Your task to perform on an android device: Show me the alarms in the clock app Image 0: 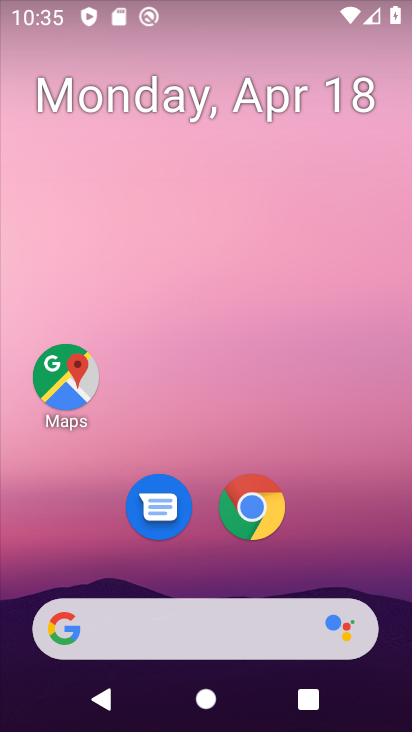
Step 0: drag from (260, 674) to (348, 109)
Your task to perform on an android device: Show me the alarms in the clock app Image 1: 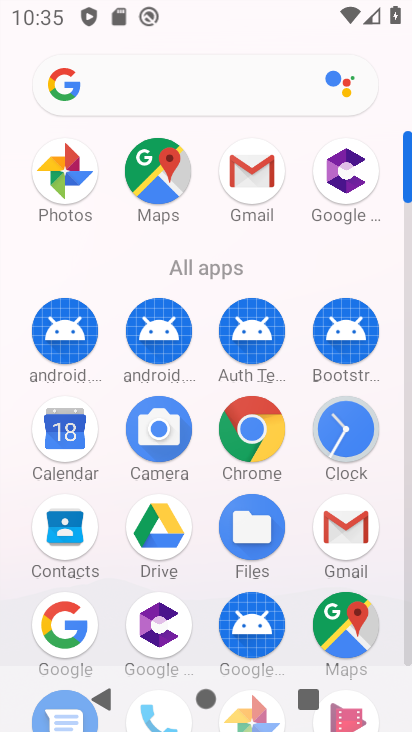
Step 1: click (349, 390)
Your task to perform on an android device: Show me the alarms in the clock app Image 2: 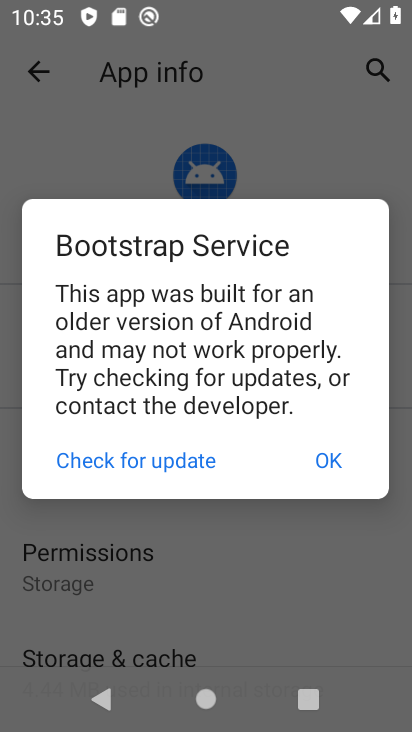
Step 2: press home button
Your task to perform on an android device: Show me the alarms in the clock app Image 3: 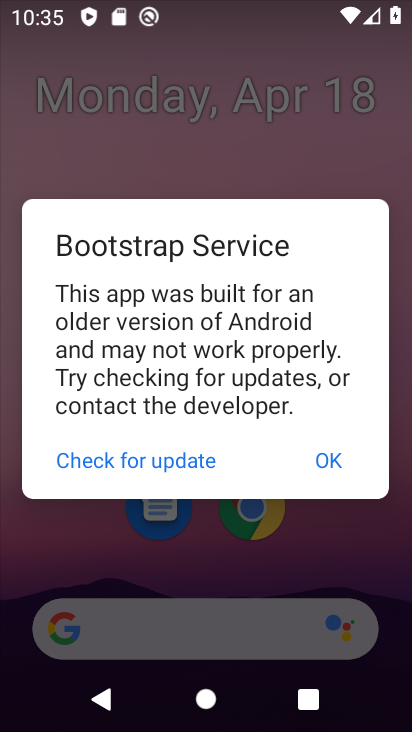
Step 3: click (317, 467)
Your task to perform on an android device: Show me the alarms in the clock app Image 4: 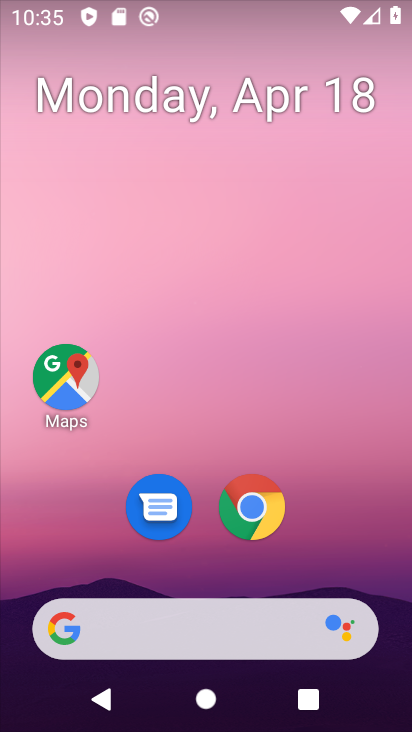
Step 4: drag from (306, 618) to (361, 136)
Your task to perform on an android device: Show me the alarms in the clock app Image 5: 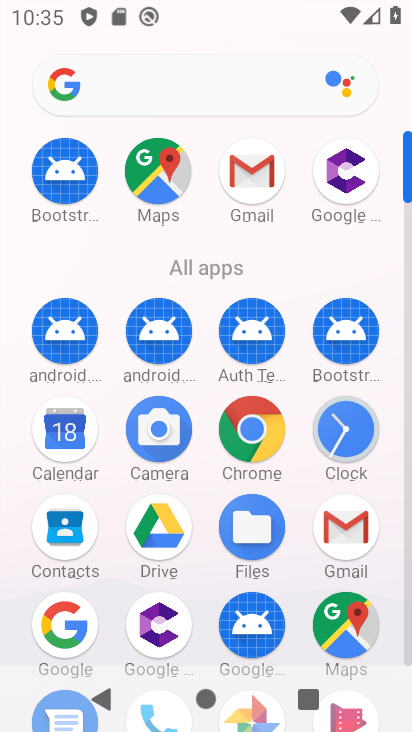
Step 5: click (322, 430)
Your task to perform on an android device: Show me the alarms in the clock app Image 6: 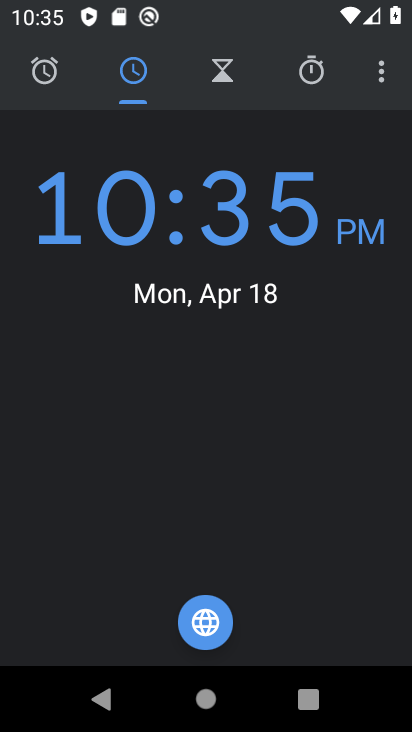
Step 6: click (383, 90)
Your task to perform on an android device: Show me the alarms in the clock app Image 7: 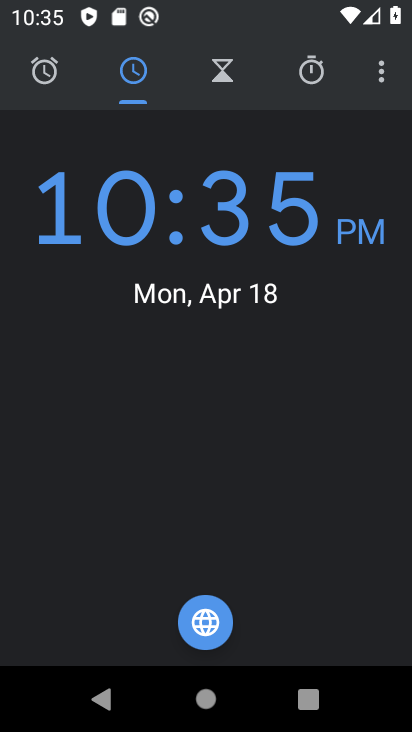
Step 7: click (371, 76)
Your task to perform on an android device: Show me the alarms in the clock app Image 8: 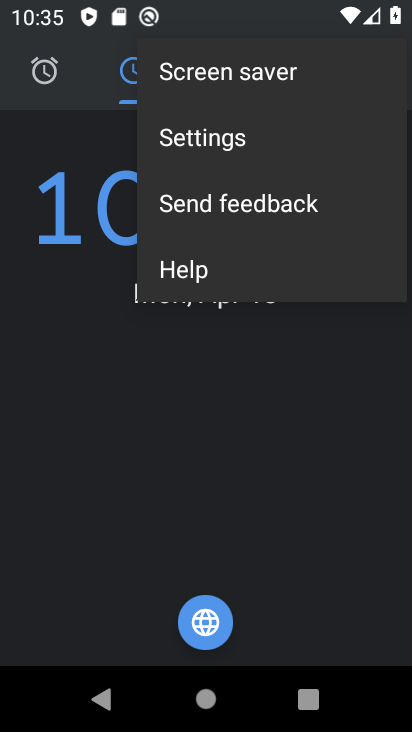
Step 8: click (261, 148)
Your task to perform on an android device: Show me the alarms in the clock app Image 9: 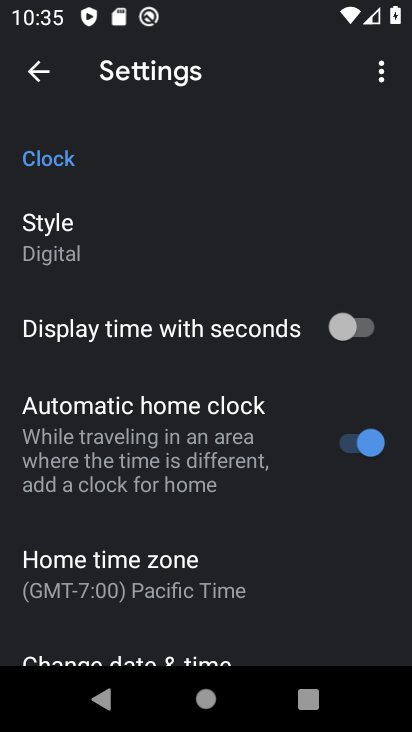
Step 9: click (38, 97)
Your task to perform on an android device: Show me the alarms in the clock app Image 10: 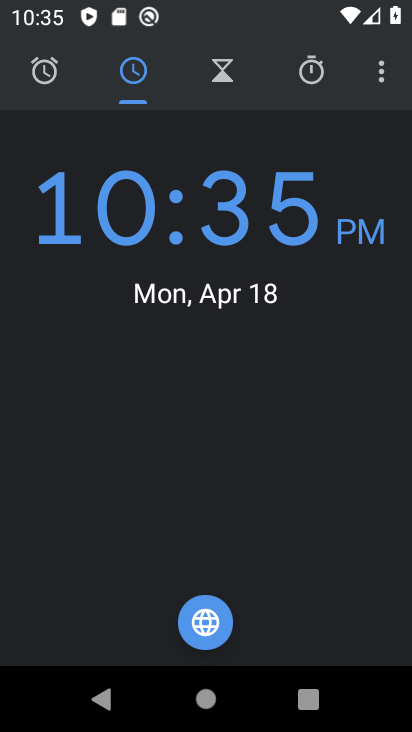
Step 10: click (62, 80)
Your task to perform on an android device: Show me the alarms in the clock app Image 11: 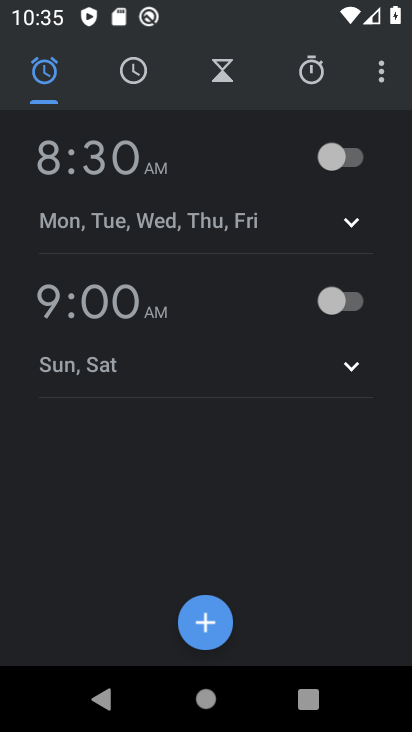
Step 11: click (194, 208)
Your task to perform on an android device: Show me the alarms in the clock app Image 12: 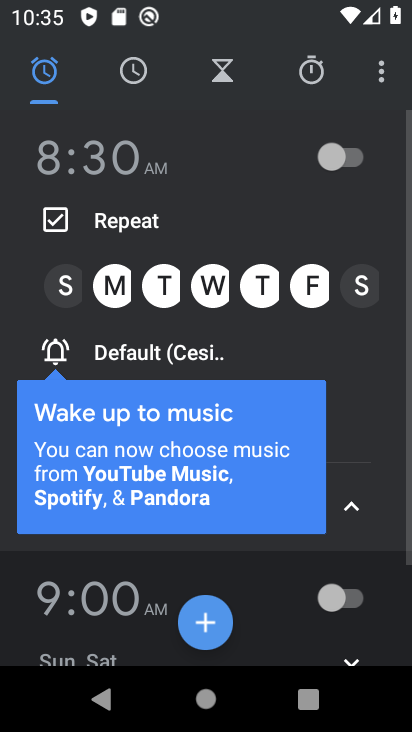
Step 12: click (342, 173)
Your task to perform on an android device: Show me the alarms in the clock app Image 13: 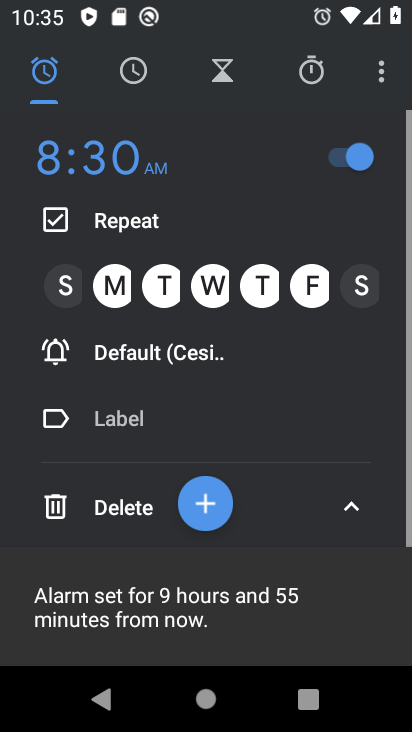
Step 13: task complete